Your task to perform on an android device: Open the map Image 0: 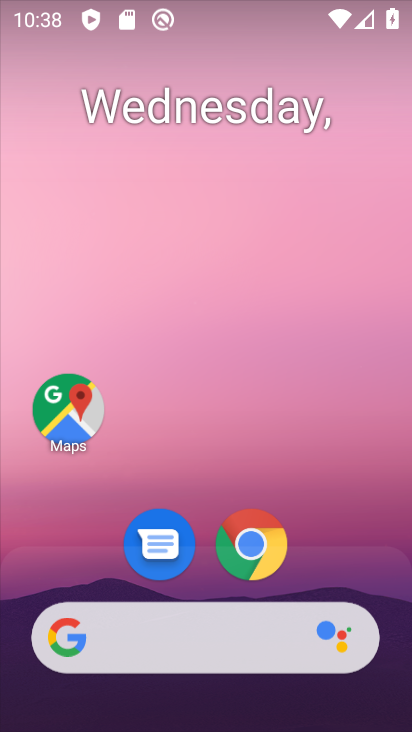
Step 0: click (243, 529)
Your task to perform on an android device: Open the map Image 1: 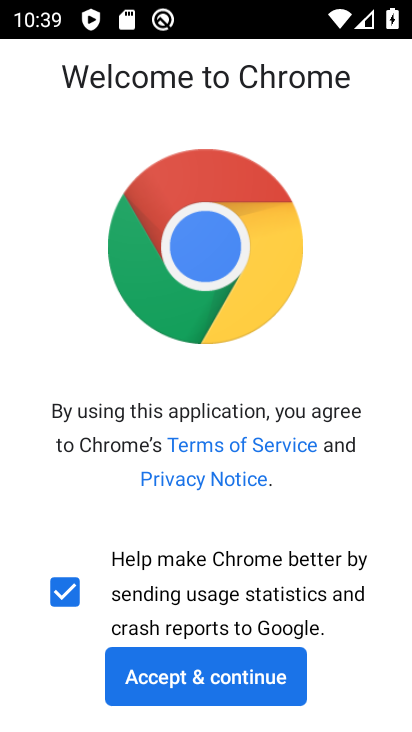
Step 1: click (239, 686)
Your task to perform on an android device: Open the map Image 2: 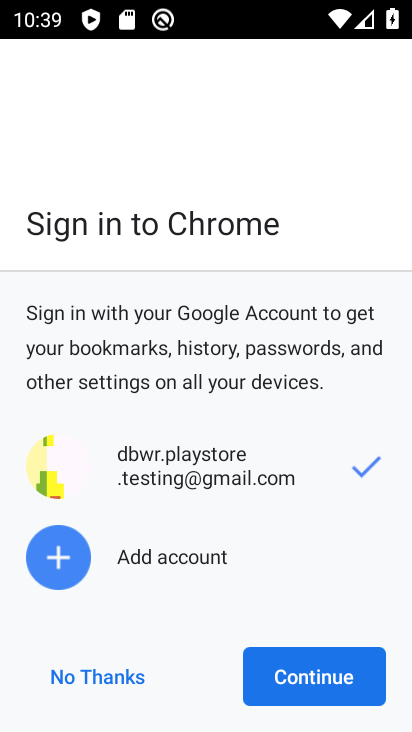
Step 2: click (304, 691)
Your task to perform on an android device: Open the map Image 3: 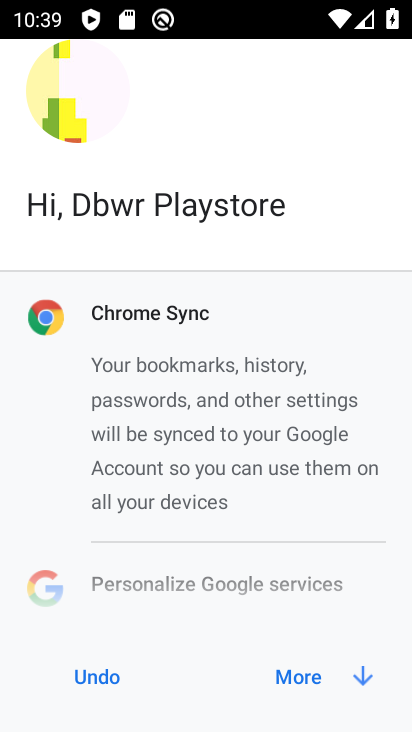
Step 3: click (315, 670)
Your task to perform on an android device: Open the map Image 4: 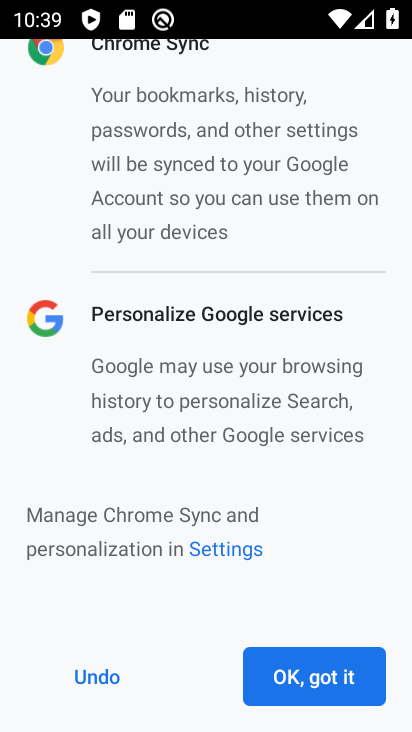
Step 4: click (315, 670)
Your task to perform on an android device: Open the map Image 5: 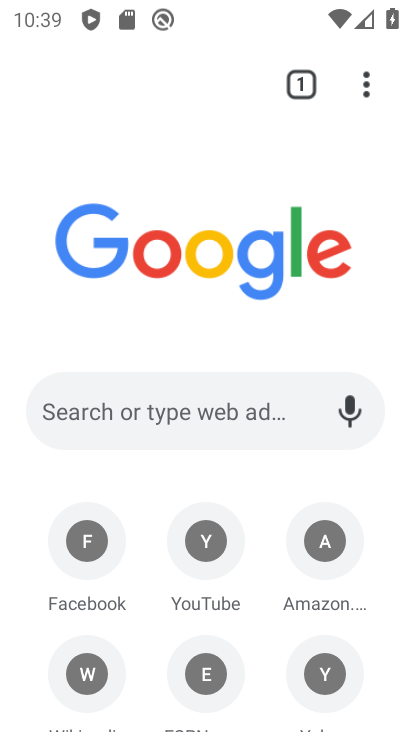
Step 5: click (197, 390)
Your task to perform on an android device: Open the map Image 6: 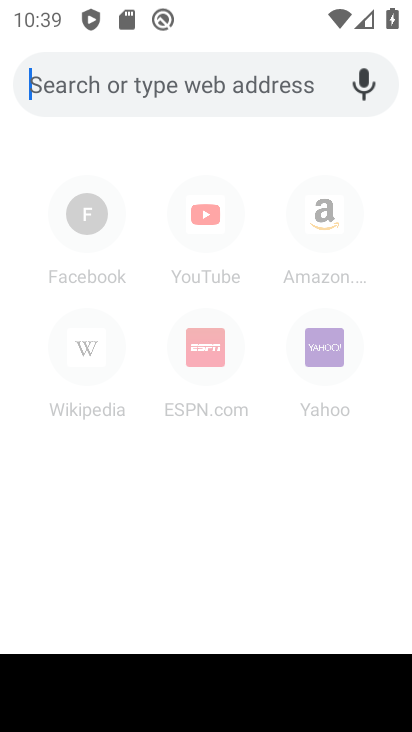
Step 6: type "ebay"
Your task to perform on an android device: Open the map Image 7: 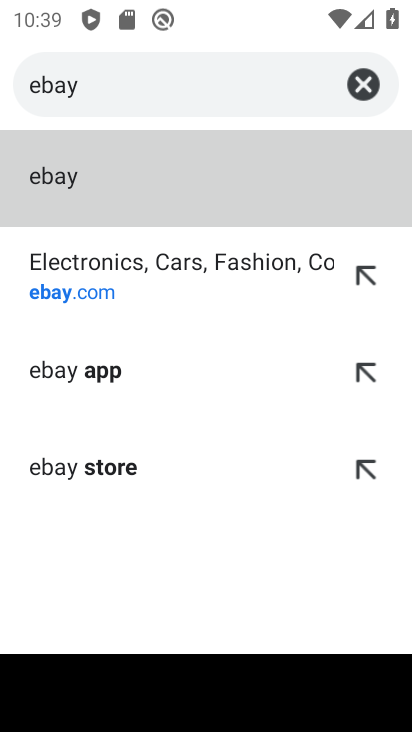
Step 7: click (80, 290)
Your task to perform on an android device: Open the map Image 8: 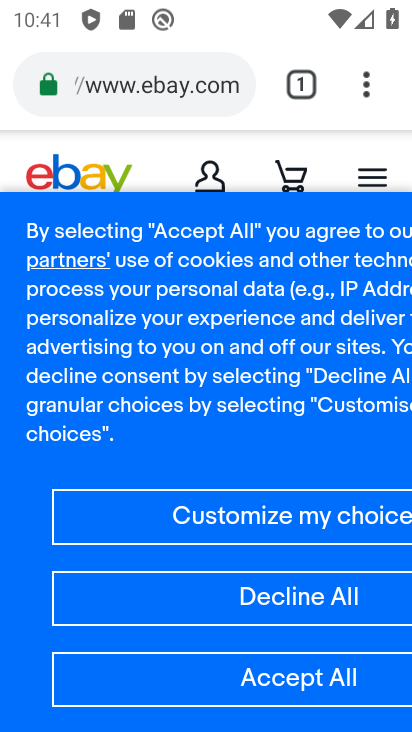
Step 8: press home button
Your task to perform on an android device: Open the map Image 9: 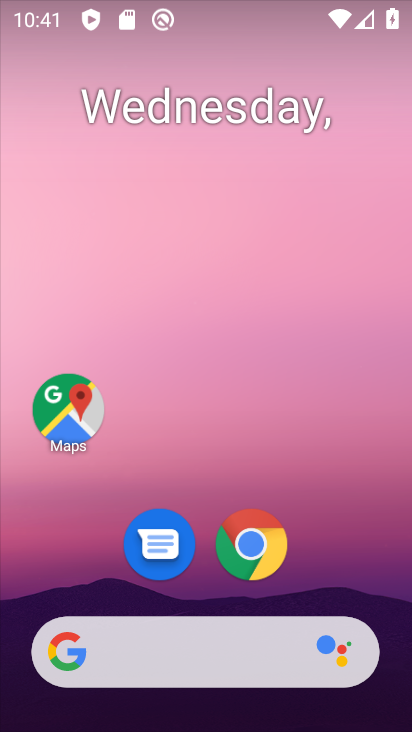
Step 9: click (62, 412)
Your task to perform on an android device: Open the map Image 10: 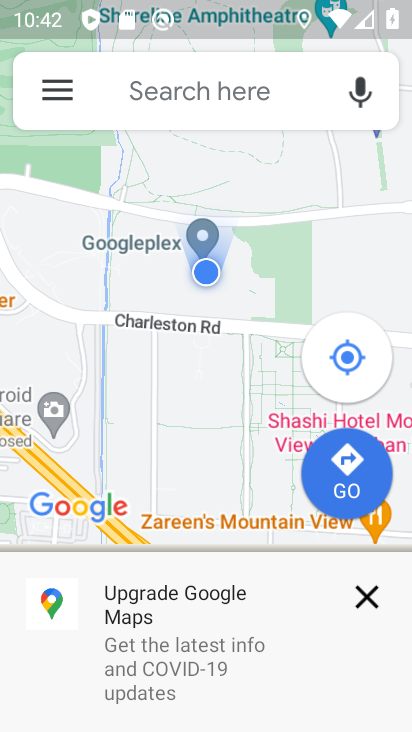
Step 10: task complete